Your task to perform on an android device: Open CNN.com Image 0: 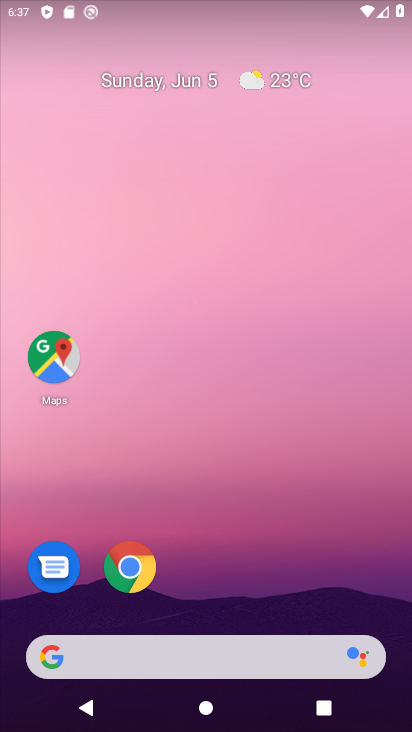
Step 0: drag from (362, 595) to (327, 30)
Your task to perform on an android device: Open CNN.com Image 1: 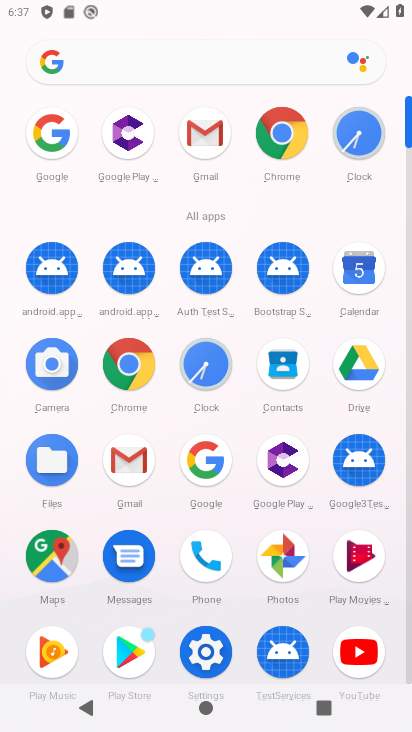
Step 1: click (203, 461)
Your task to perform on an android device: Open CNN.com Image 2: 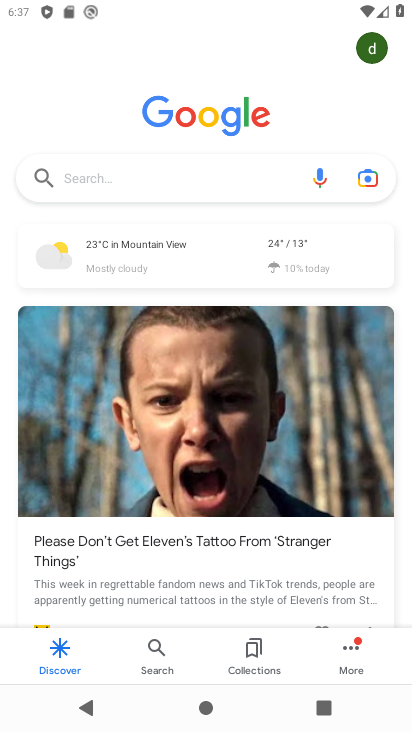
Step 2: click (136, 173)
Your task to perform on an android device: Open CNN.com Image 3: 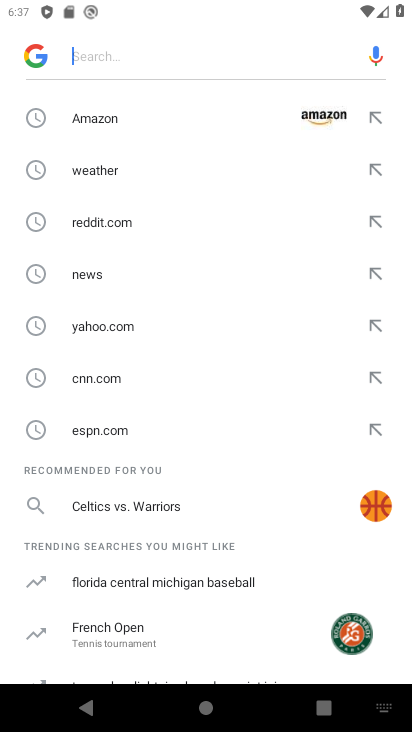
Step 3: click (134, 374)
Your task to perform on an android device: Open CNN.com Image 4: 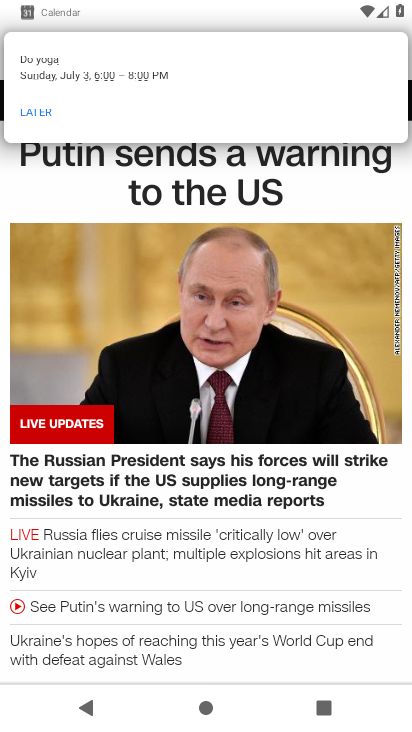
Step 4: task complete